Your task to perform on an android device: refresh tabs in the chrome app Image 0: 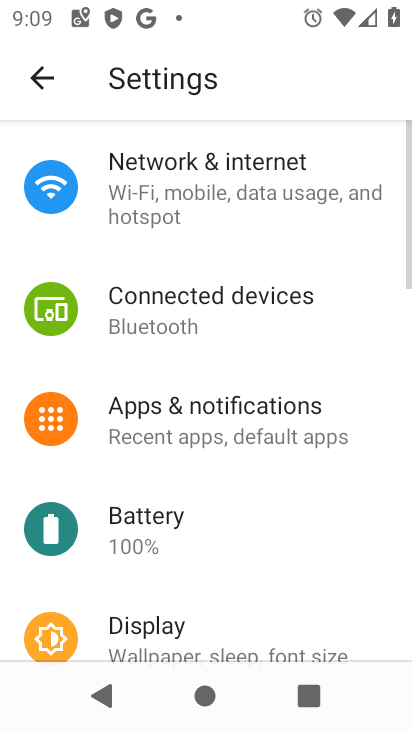
Step 0: press home button
Your task to perform on an android device: refresh tabs in the chrome app Image 1: 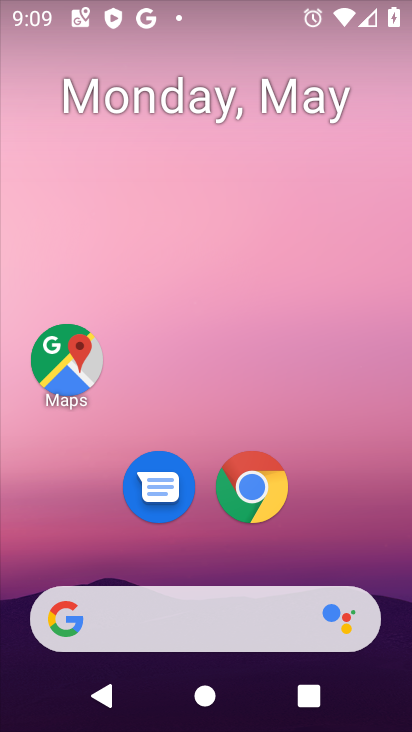
Step 1: click (244, 492)
Your task to perform on an android device: refresh tabs in the chrome app Image 2: 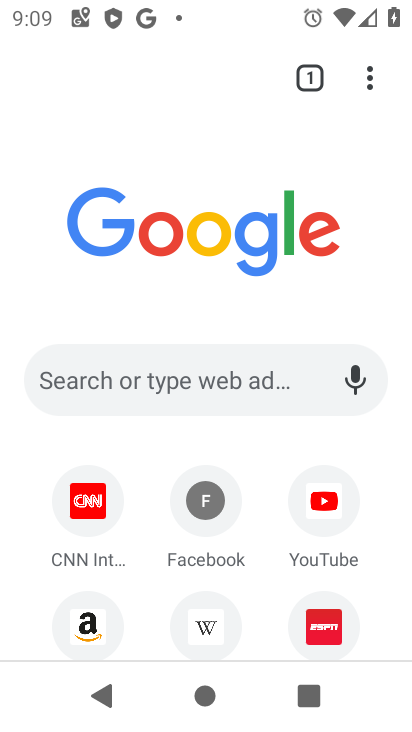
Step 2: click (384, 69)
Your task to perform on an android device: refresh tabs in the chrome app Image 3: 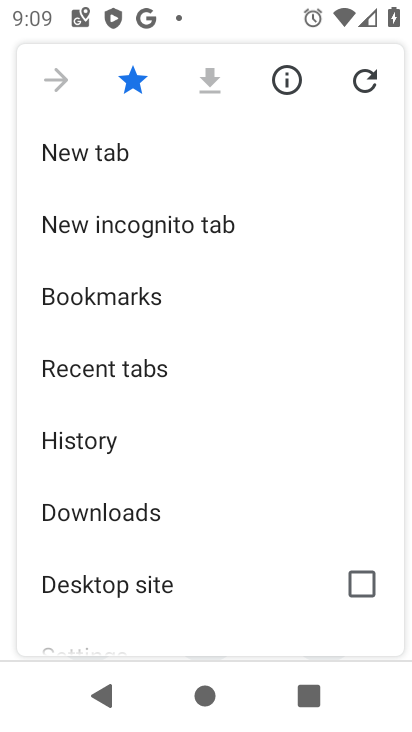
Step 3: click (356, 85)
Your task to perform on an android device: refresh tabs in the chrome app Image 4: 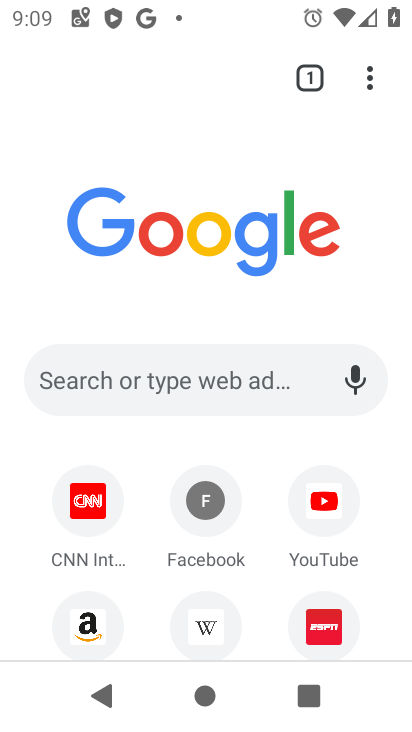
Step 4: click (364, 72)
Your task to perform on an android device: refresh tabs in the chrome app Image 5: 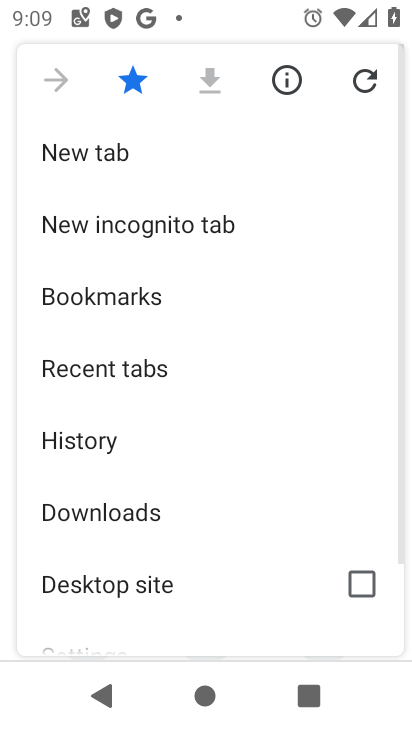
Step 5: click (367, 85)
Your task to perform on an android device: refresh tabs in the chrome app Image 6: 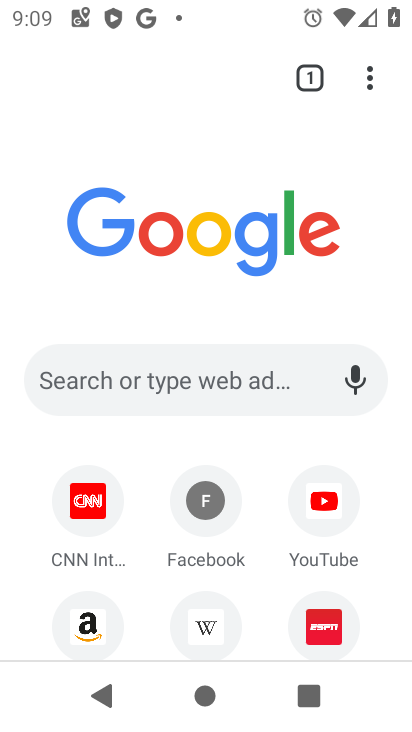
Step 6: task complete